Your task to perform on an android device: set default search engine in the chrome app Image 0: 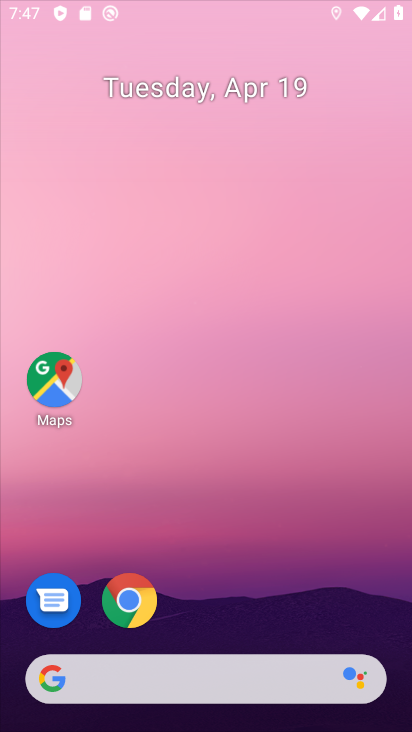
Step 0: click (227, 248)
Your task to perform on an android device: set default search engine in the chrome app Image 1: 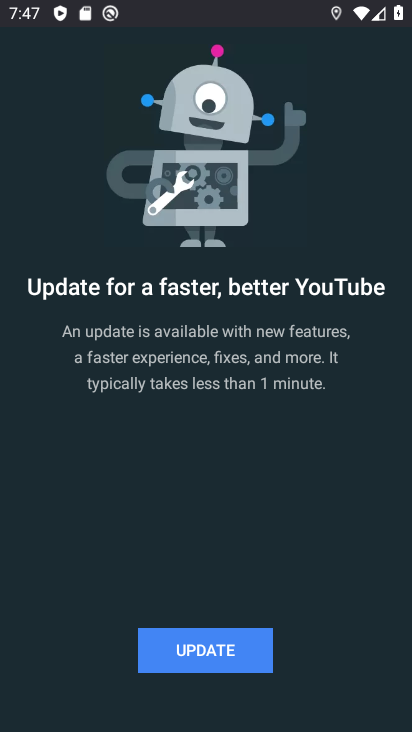
Step 1: press home button
Your task to perform on an android device: set default search engine in the chrome app Image 2: 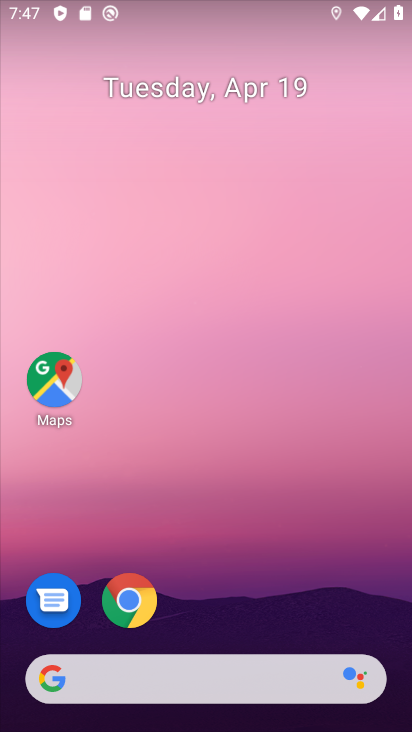
Step 2: drag from (149, 619) to (184, 150)
Your task to perform on an android device: set default search engine in the chrome app Image 3: 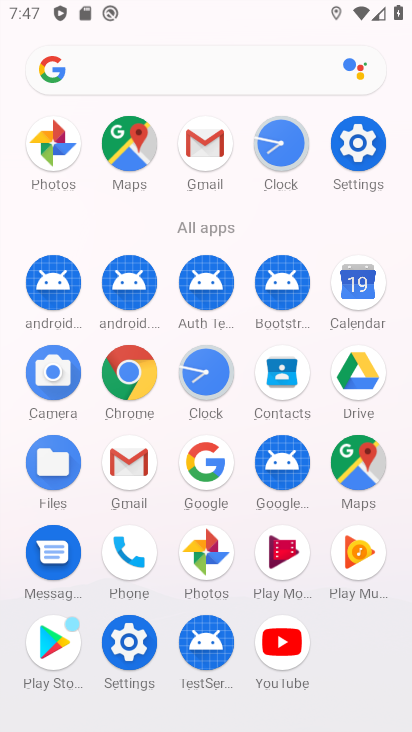
Step 3: click (129, 373)
Your task to perform on an android device: set default search engine in the chrome app Image 4: 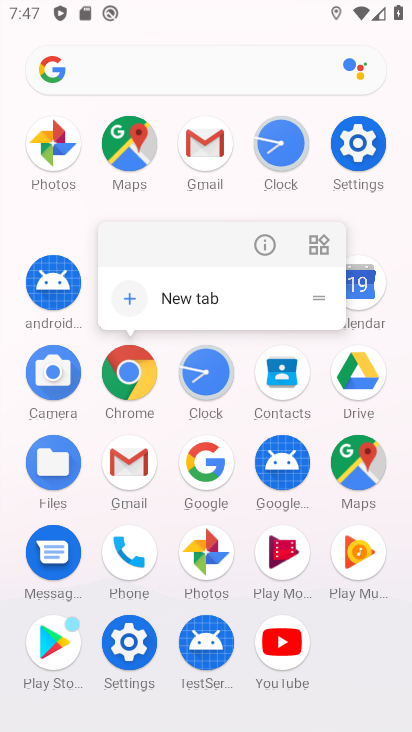
Step 4: click (256, 249)
Your task to perform on an android device: set default search engine in the chrome app Image 5: 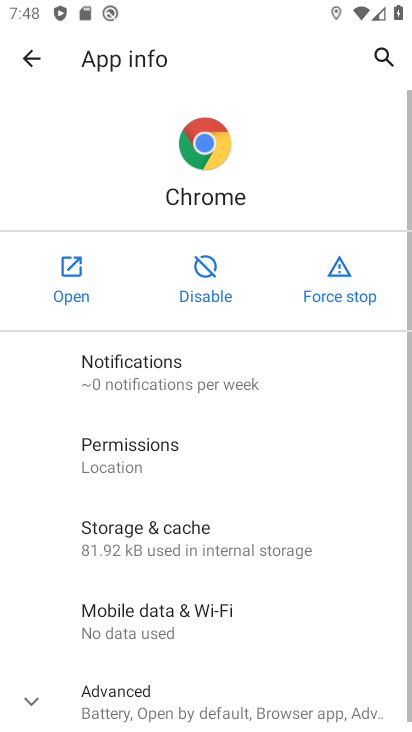
Step 5: click (86, 288)
Your task to perform on an android device: set default search engine in the chrome app Image 6: 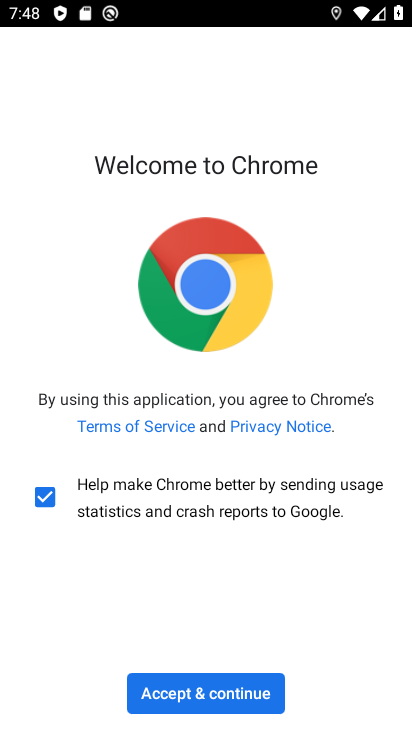
Step 6: click (207, 702)
Your task to perform on an android device: set default search engine in the chrome app Image 7: 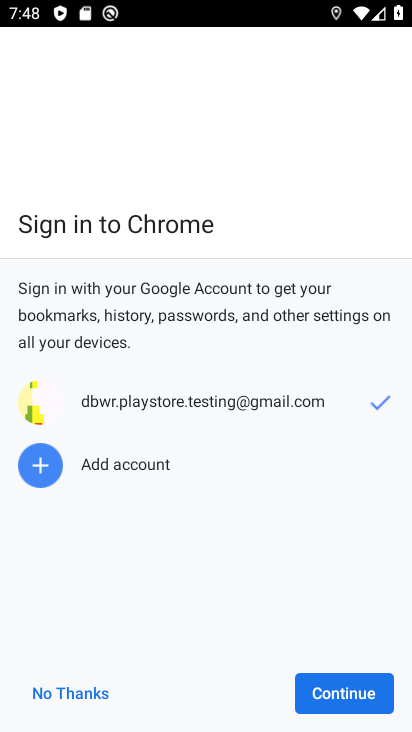
Step 7: click (361, 683)
Your task to perform on an android device: set default search engine in the chrome app Image 8: 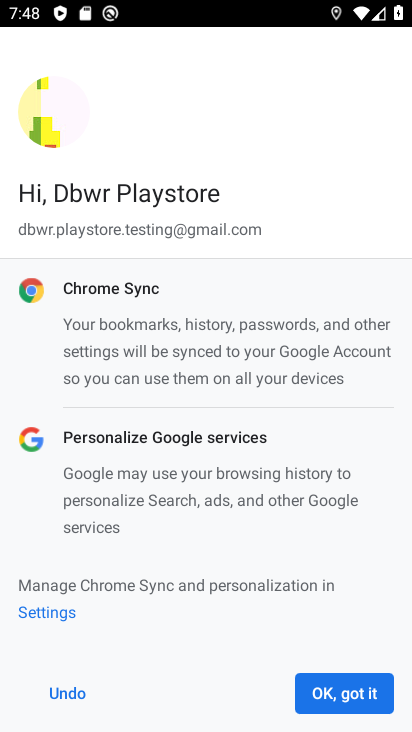
Step 8: click (365, 694)
Your task to perform on an android device: set default search engine in the chrome app Image 9: 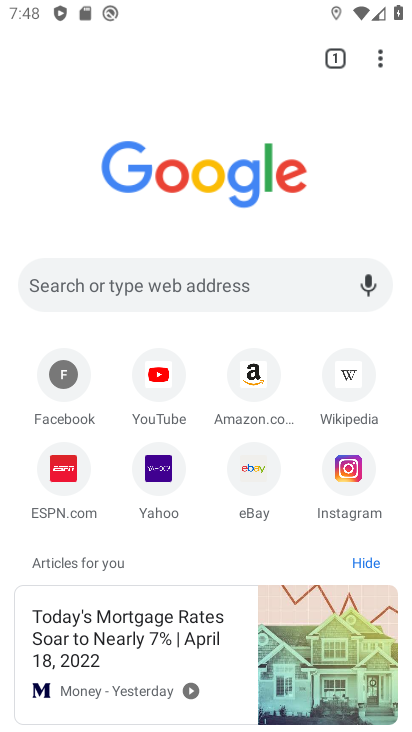
Step 9: click (386, 59)
Your task to perform on an android device: set default search engine in the chrome app Image 10: 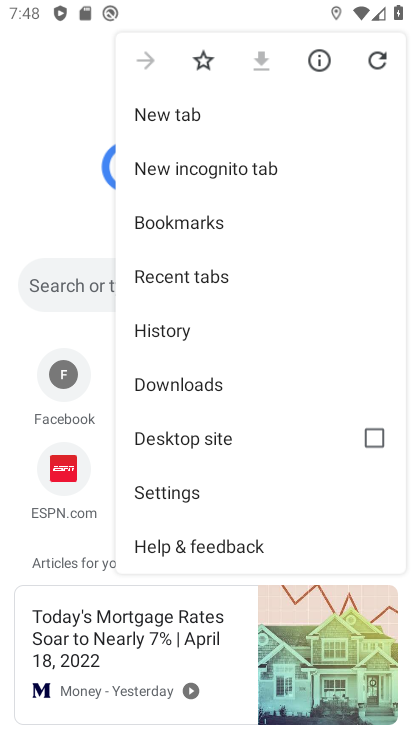
Step 10: click (174, 491)
Your task to perform on an android device: set default search engine in the chrome app Image 11: 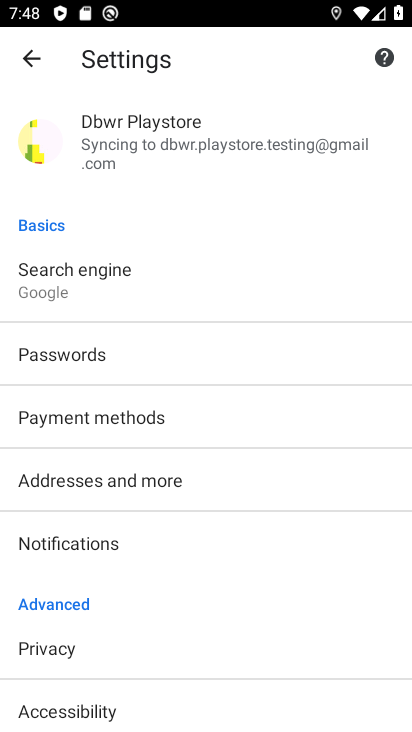
Step 11: click (63, 269)
Your task to perform on an android device: set default search engine in the chrome app Image 12: 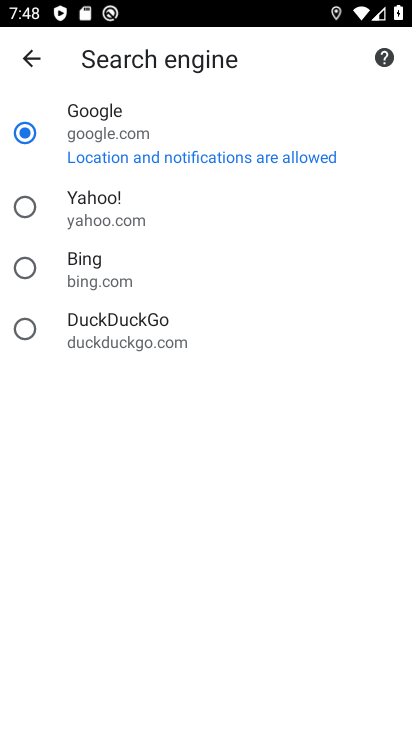
Step 12: click (31, 199)
Your task to perform on an android device: set default search engine in the chrome app Image 13: 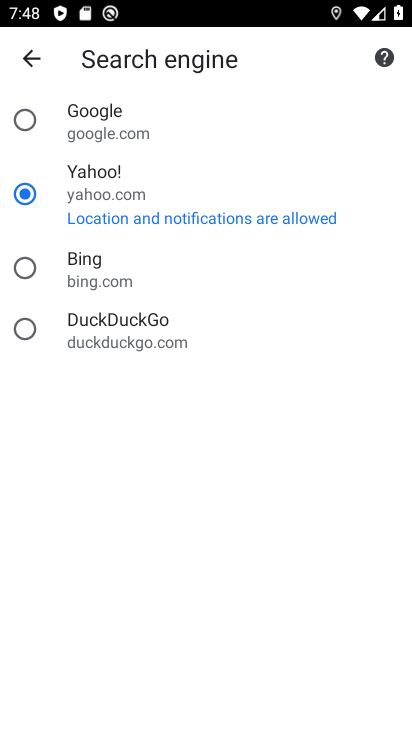
Step 13: click (23, 121)
Your task to perform on an android device: set default search engine in the chrome app Image 14: 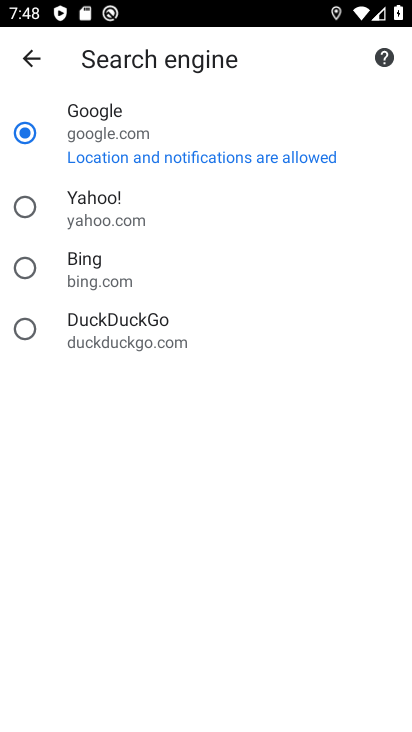
Step 14: task complete